Your task to perform on an android device: Go to wifi settings Image 0: 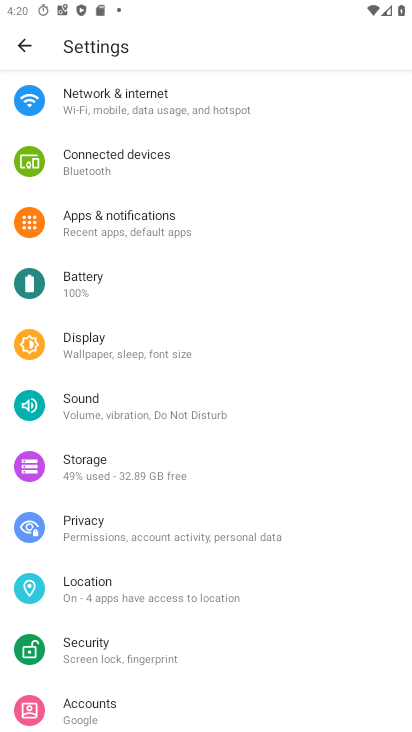
Step 0: click (121, 113)
Your task to perform on an android device: Go to wifi settings Image 1: 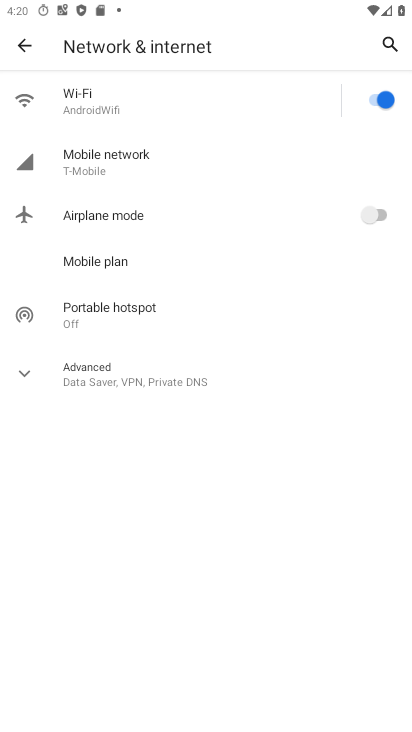
Step 1: click (148, 93)
Your task to perform on an android device: Go to wifi settings Image 2: 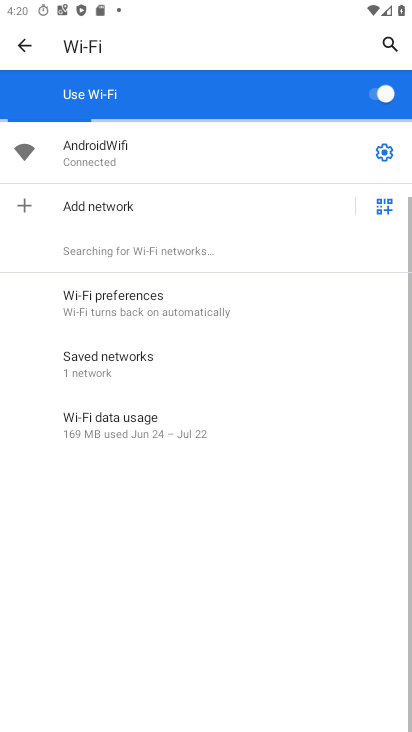
Step 2: task complete